Your task to perform on an android device: Search for "logitech g910" on bestbuy, select the first entry, add it to the cart, then select checkout. Image 0: 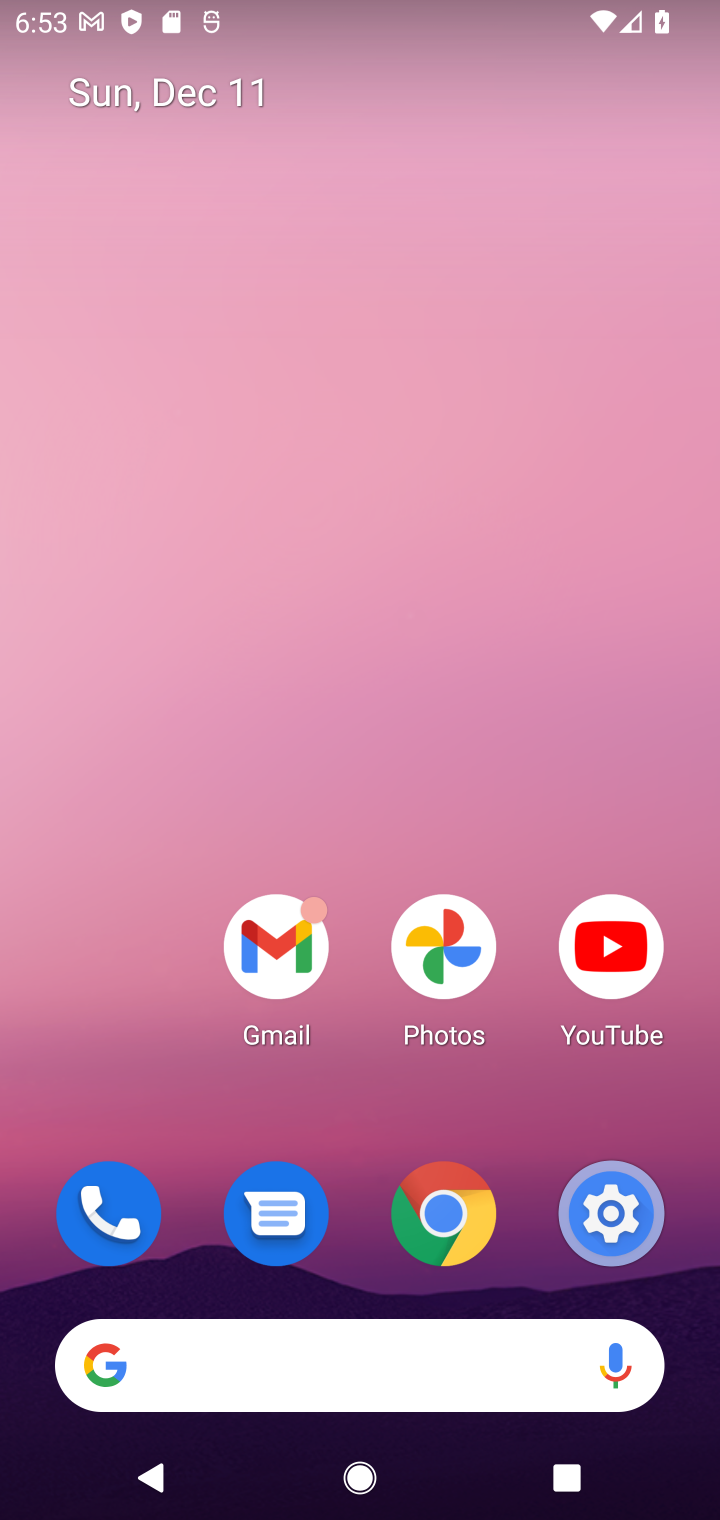
Step 0: click (363, 1352)
Your task to perform on an android device: Search for "logitech g910" on bestbuy, select the first entry, add it to the cart, then select checkout. Image 1: 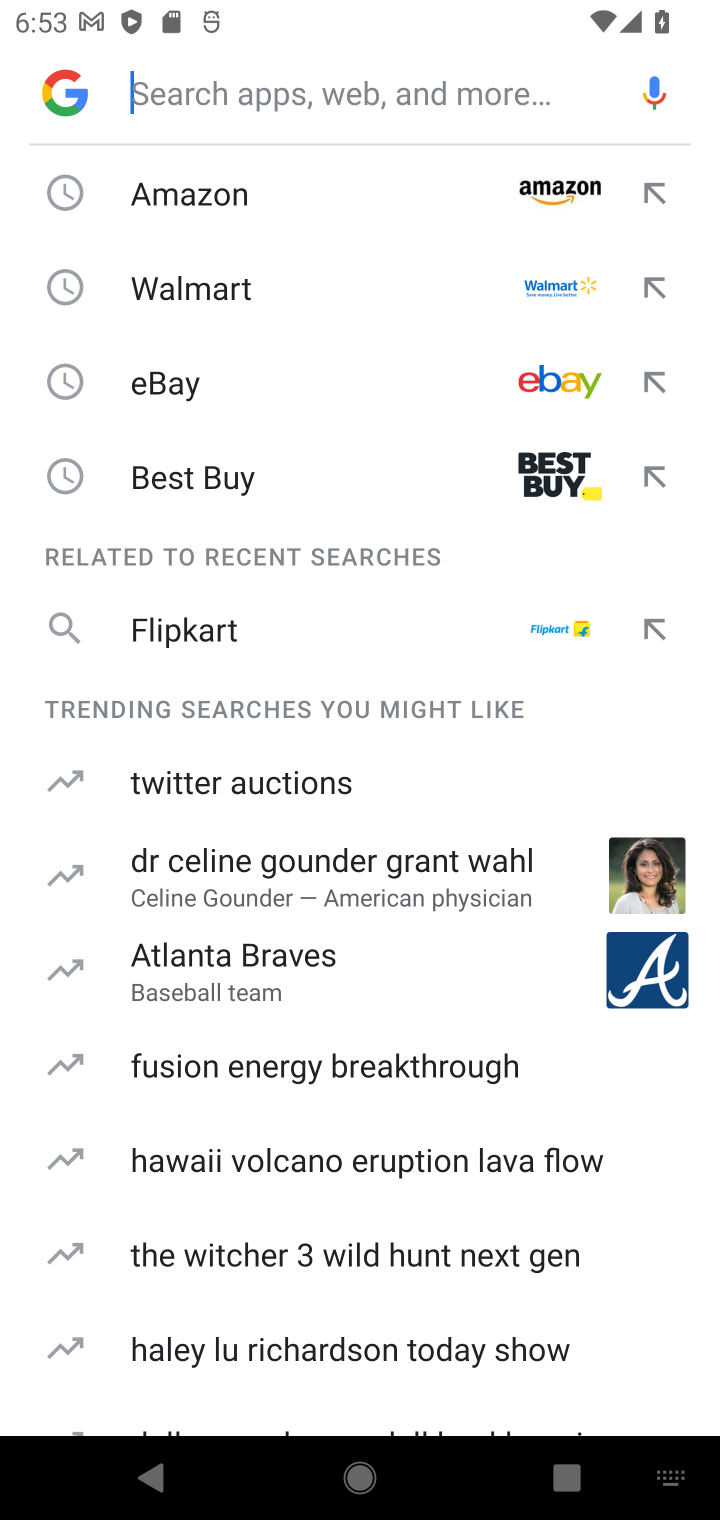
Step 1: click (336, 482)
Your task to perform on an android device: Search for "logitech g910" on bestbuy, select the first entry, add it to the cart, then select checkout. Image 2: 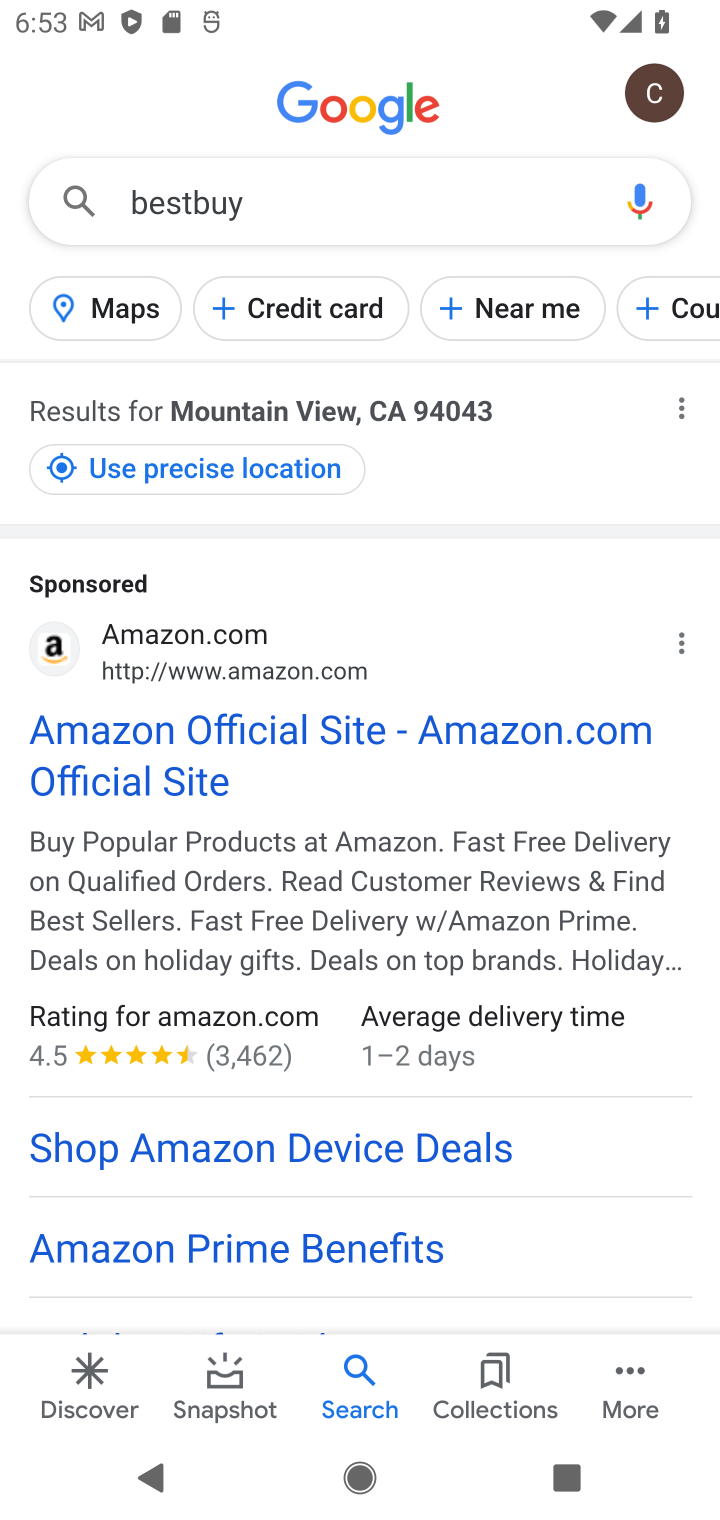
Step 2: click (209, 766)
Your task to perform on an android device: Search for "logitech g910" on bestbuy, select the first entry, add it to the cart, then select checkout. Image 3: 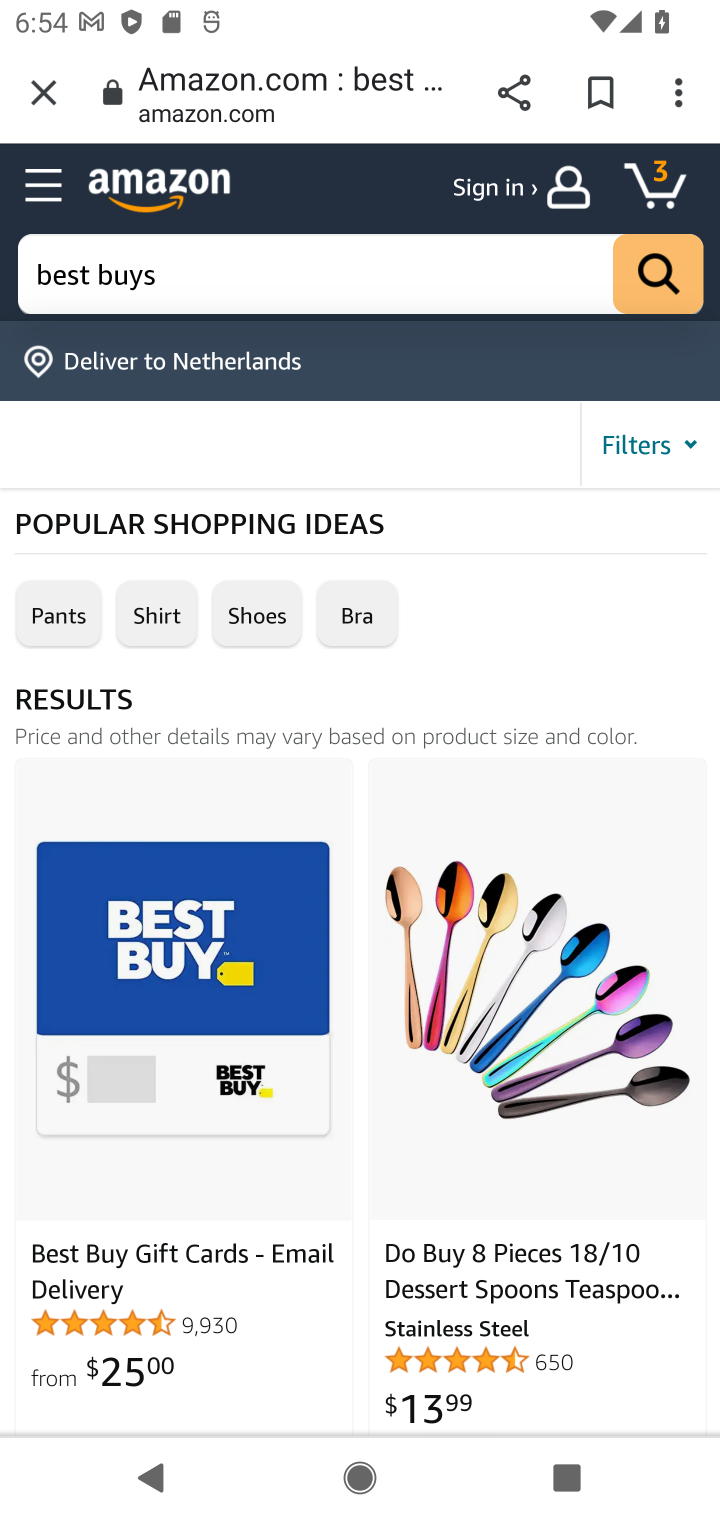
Step 3: click (440, 290)
Your task to perform on an android device: Search for "logitech g910" on bestbuy, select the first entry, add it to the cart, then select checkout. Image 4: 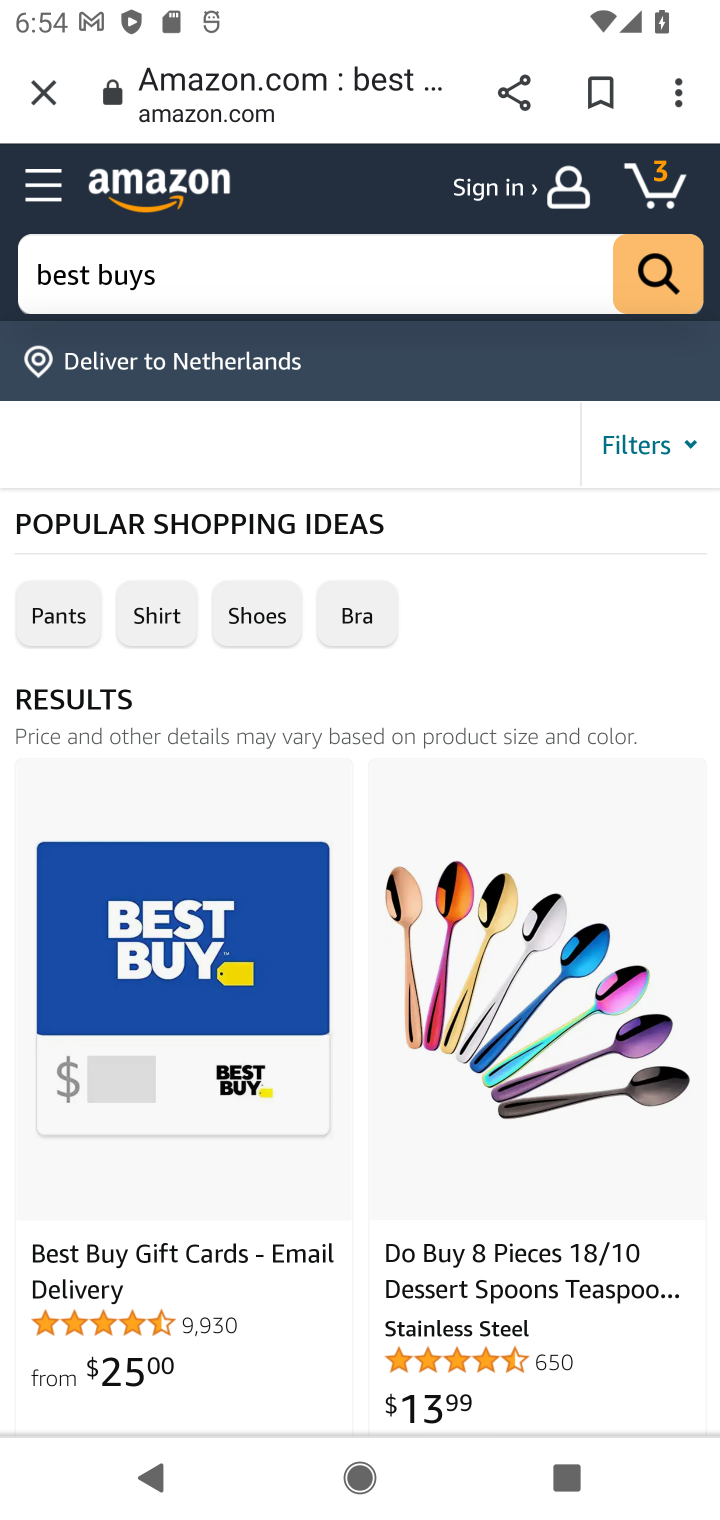
Step 4: click (440, 290)
Your task to perform on an android device: Search for "logitech g910" on bestbuy, select the first entry, add it to the cart, then select checkout. Image 5: 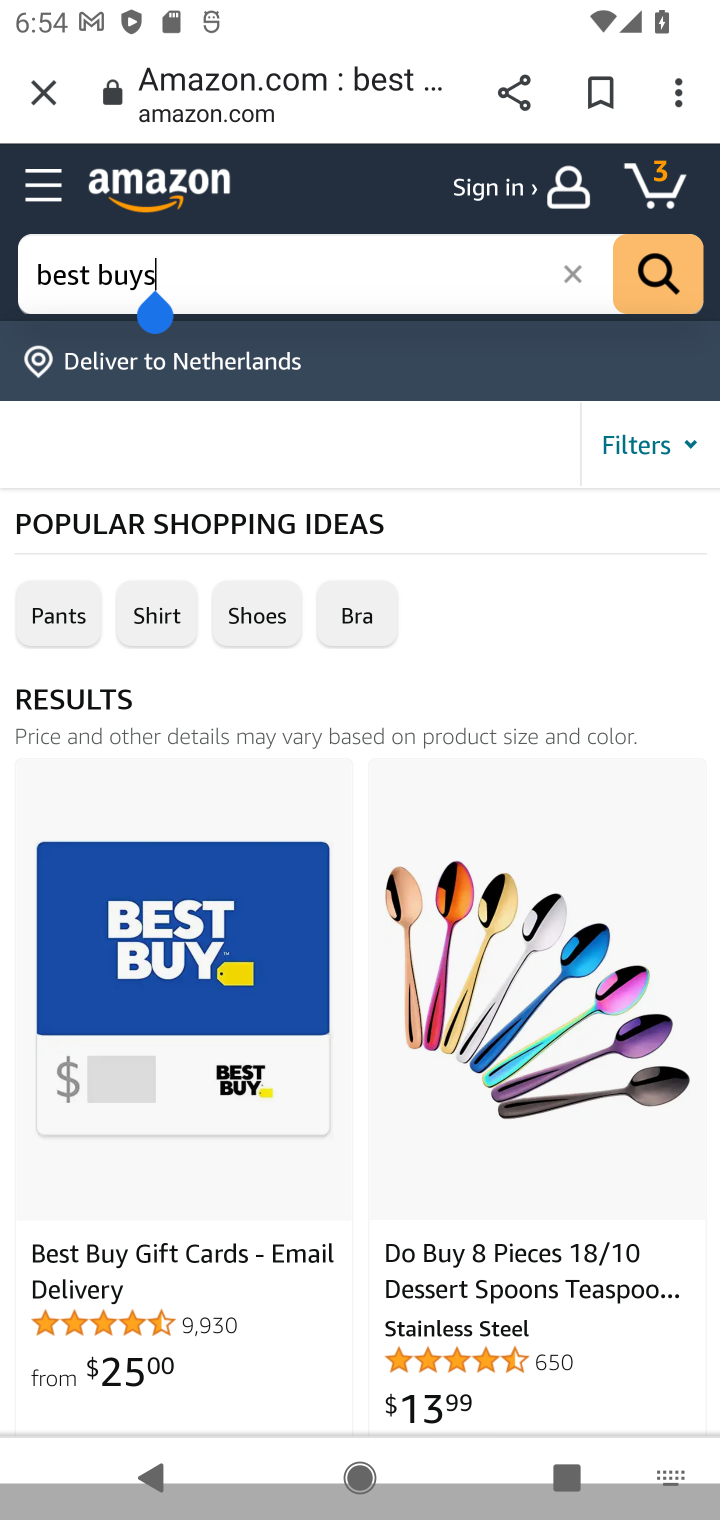
Step 5: click (440, 290)
Your task to perform on an android device: Search for "logitech g910" on bestbuy, select the first entry, add it to the cart, then select checkout. Image 6: 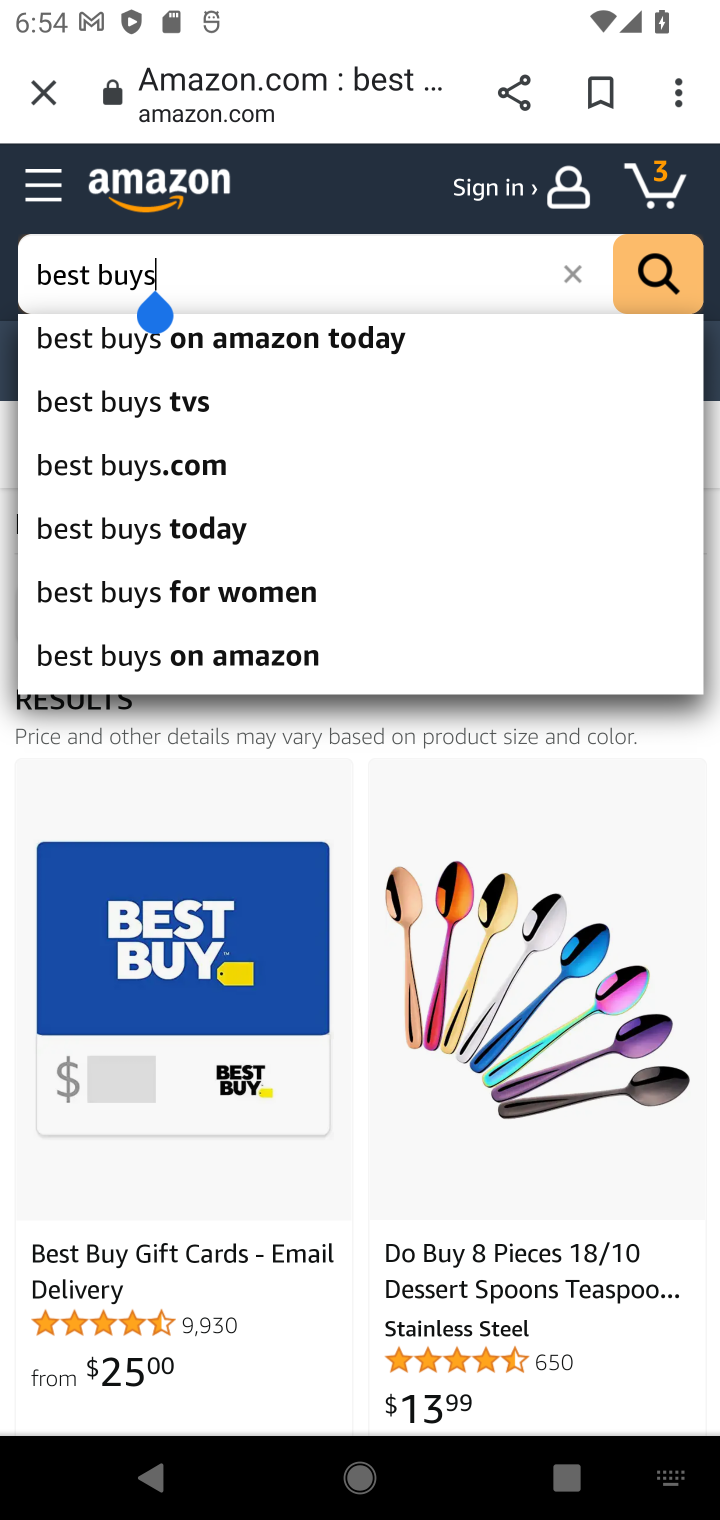
Step 6: click (383, 110)
Your task to perform on an android device: Search for "logitech g910" on bestbuy, select the first entry, add it to the cart, then select checkout. Image 7: 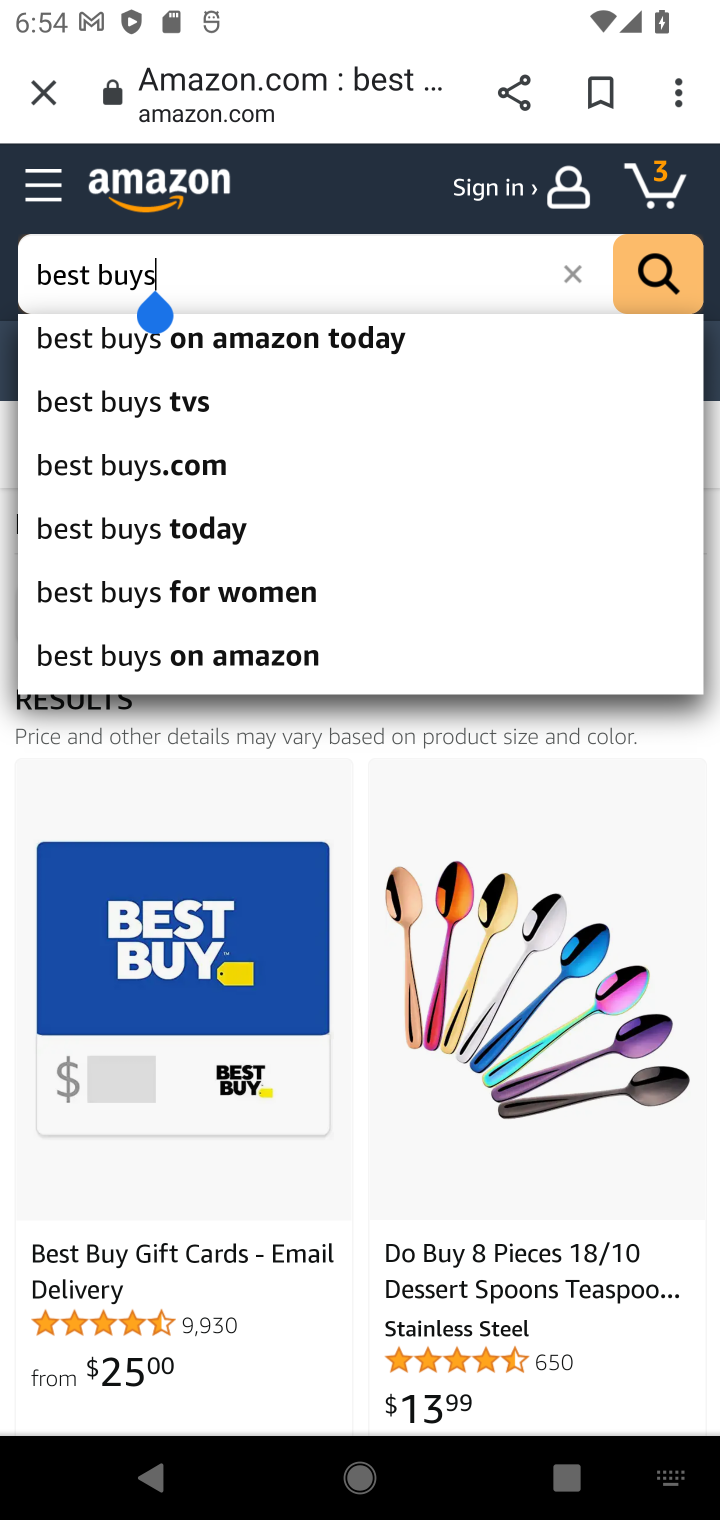
Step 7: click (383, 110)
Your task to perform on an android device: Search for "logitech g910" on bestbuy, select the first entry, add it to the cart, then select checkout. Image 8: 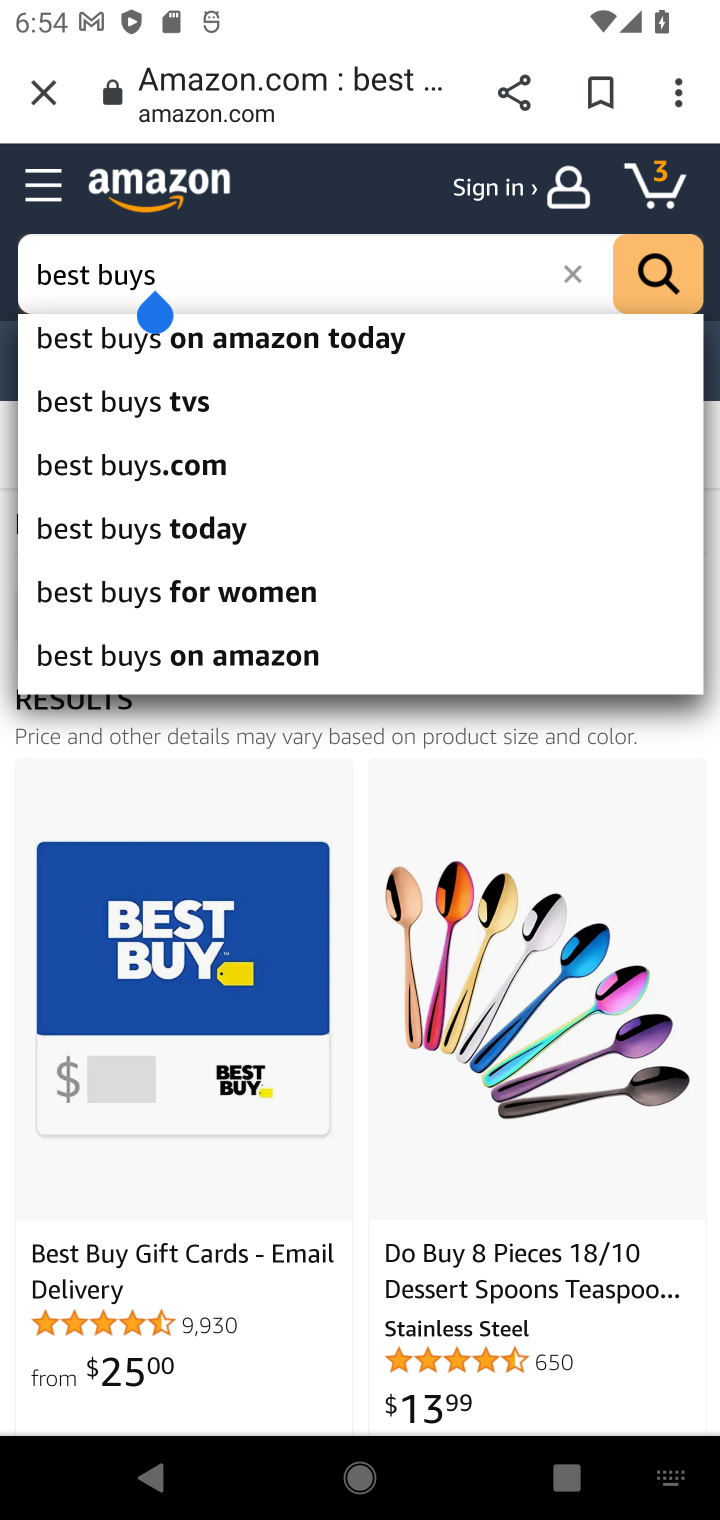
Step 8: click (383, 110)
Your task to perform on an android device: Search for "logitech g910" on bestbuy, select the first entry, add it to the cart, then select checkout. Image 9: 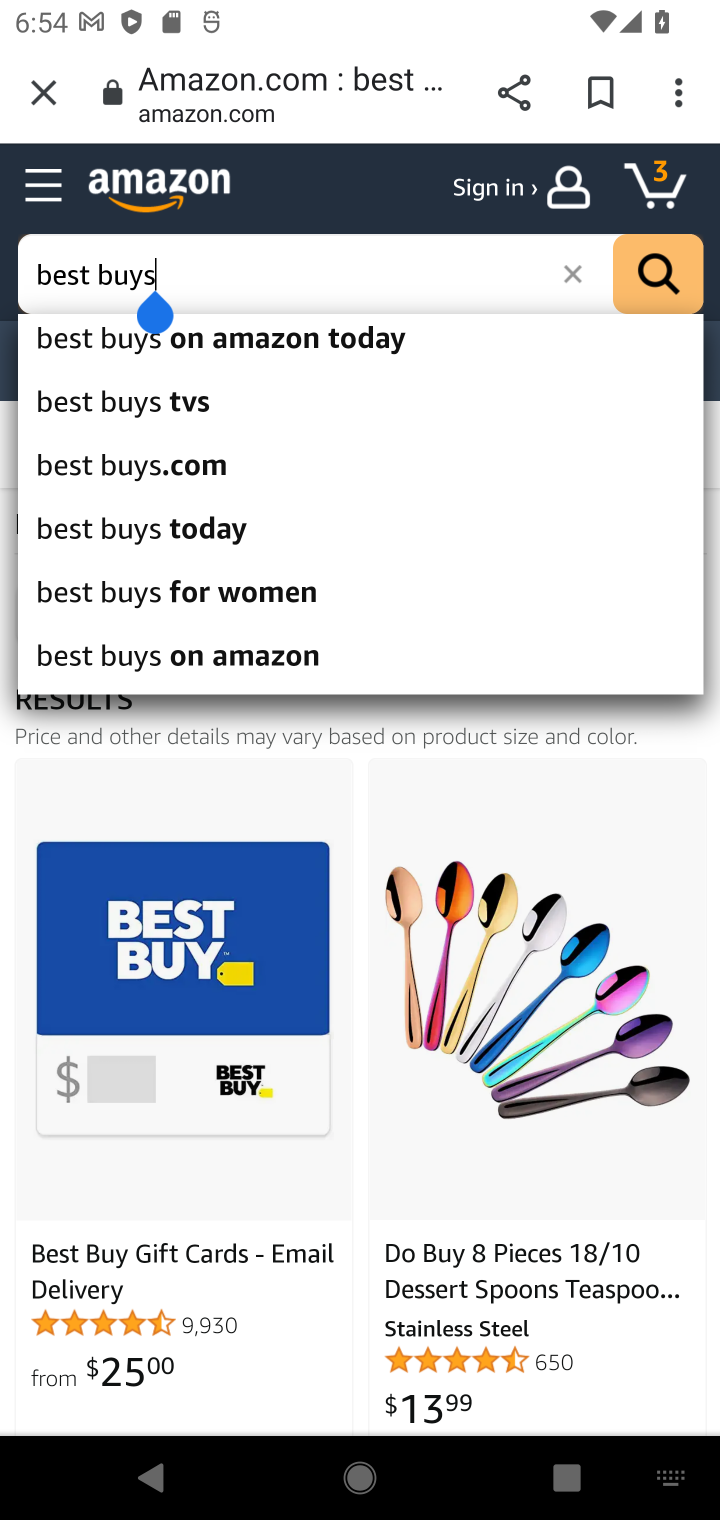
Step 9: click (33, 78)
Your task to perform on an android device: Search for "logitech g910" on bestbuy, select the first entry, add it to the cart, then select checkout. Image 10: 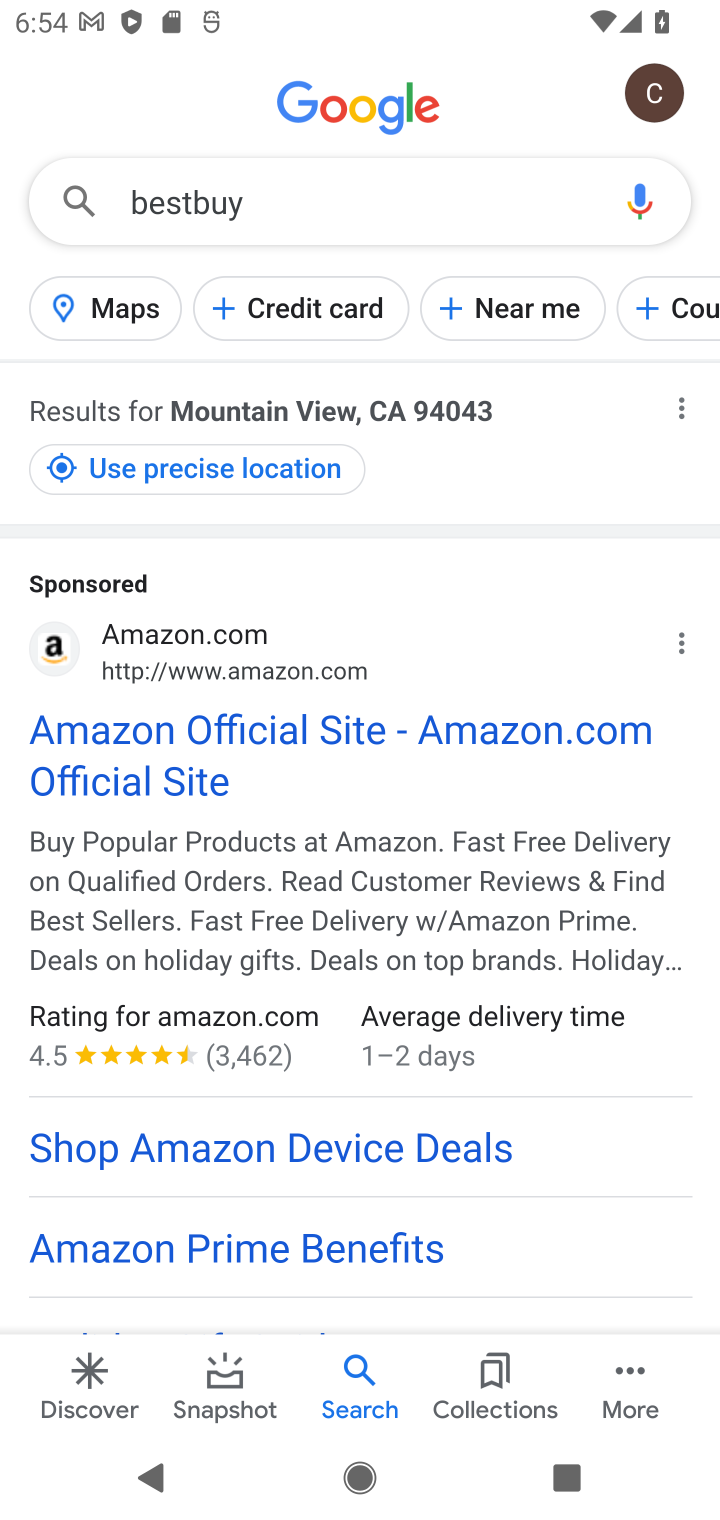
Step 10: click (347, 221)
Your task to perform on an android device: Search for "logitech g910" on bestbuy, select the first entry, add it to the cart, then select checkout. Image 11: 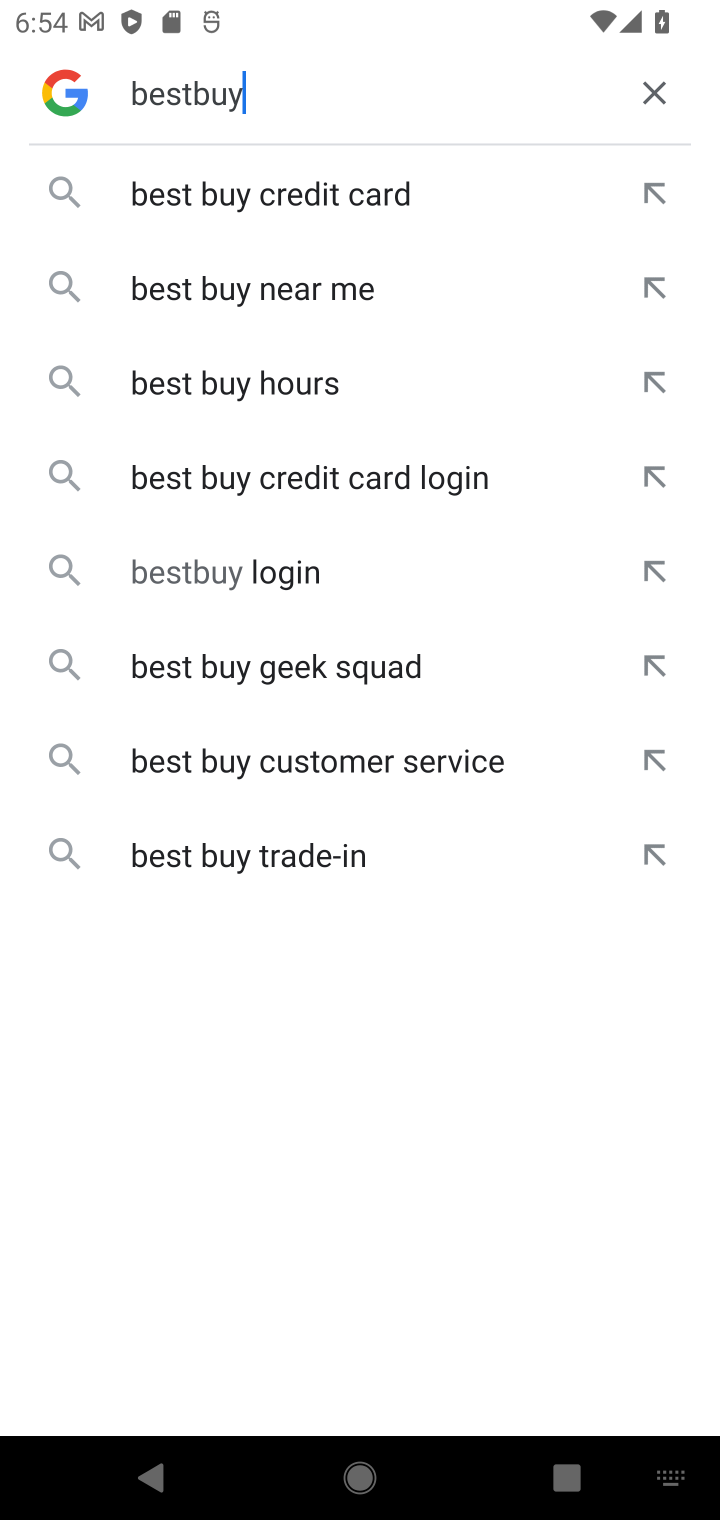
Step 11: click (331, 213)
Your task to perform on an android device: Search for "logitech g910" on bestbuy, select the first entry, add it to the cart, then select checkout. Image 12: 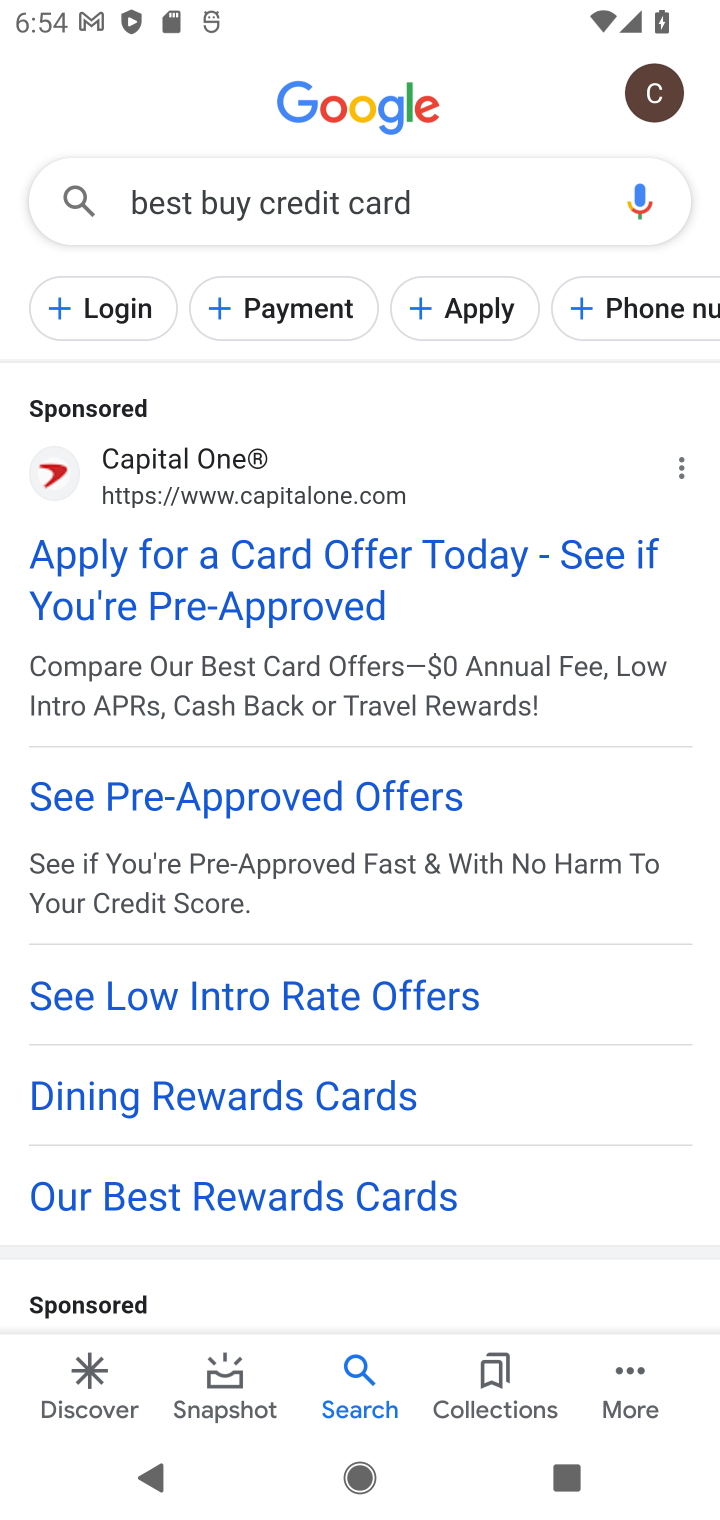
Step 12: click (447, 211)
Your task to perform on an android device: Search for "logitech g910" on bestbuy, select the first entry, add it to the cart, then select checkout. Image 13: 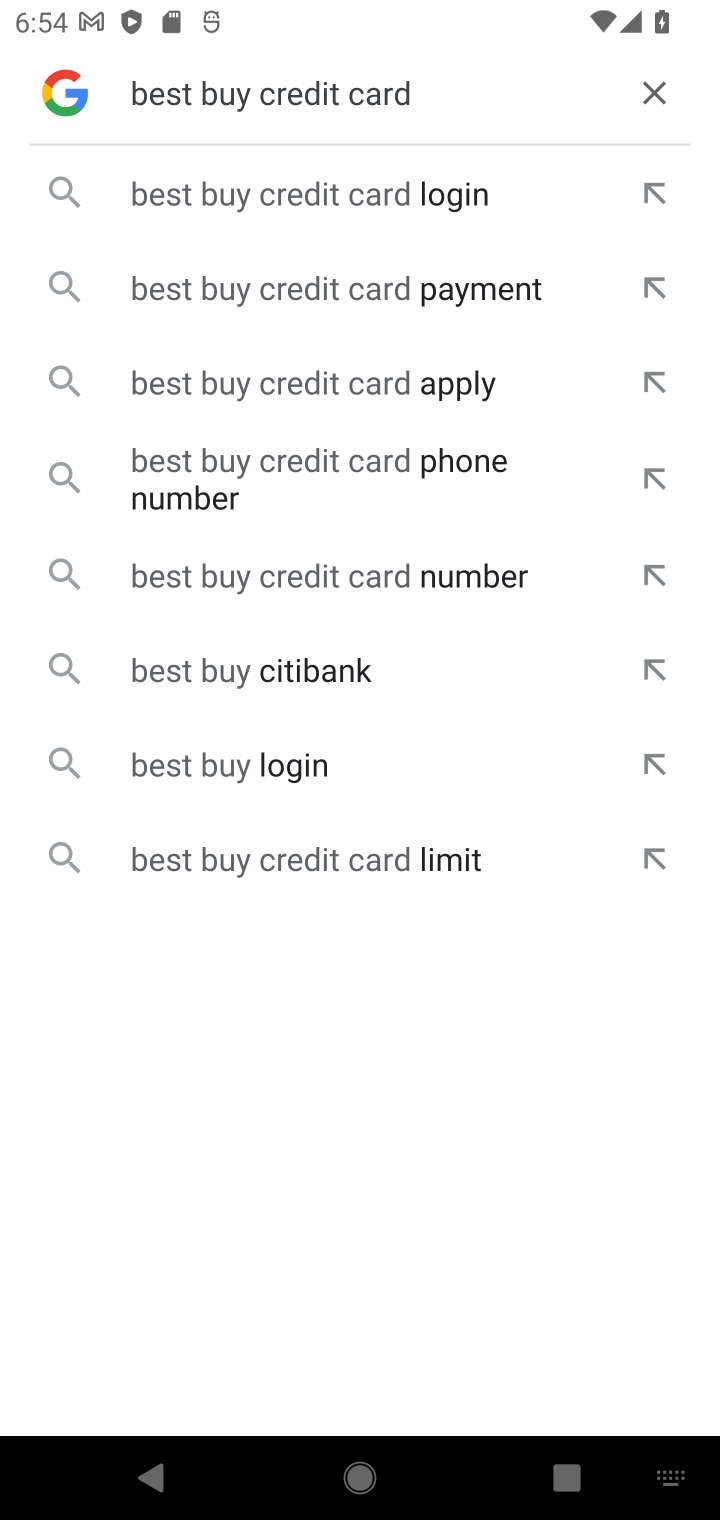
Step 13: click (674, 75)
Your task to perform on an android device: Search for "logitech g910" on bestbuy, select the first entry, add it to the cart, then select checkout. Image 14: 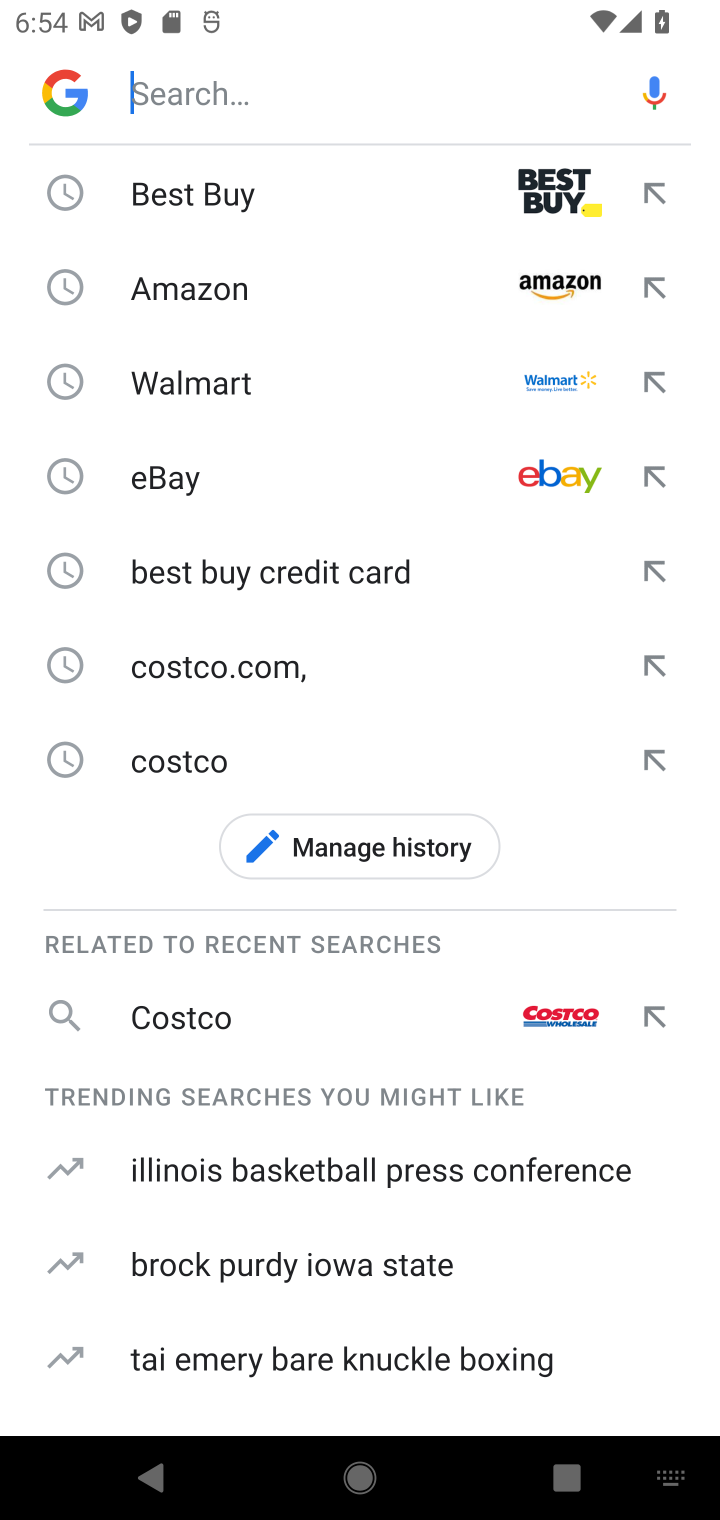
Step 14: click (373, 207)
Your task to perform on an android device: Search for "logitech g910" on bestbuy, select the first entry, add it to the cart, then select checkout. Image 15: 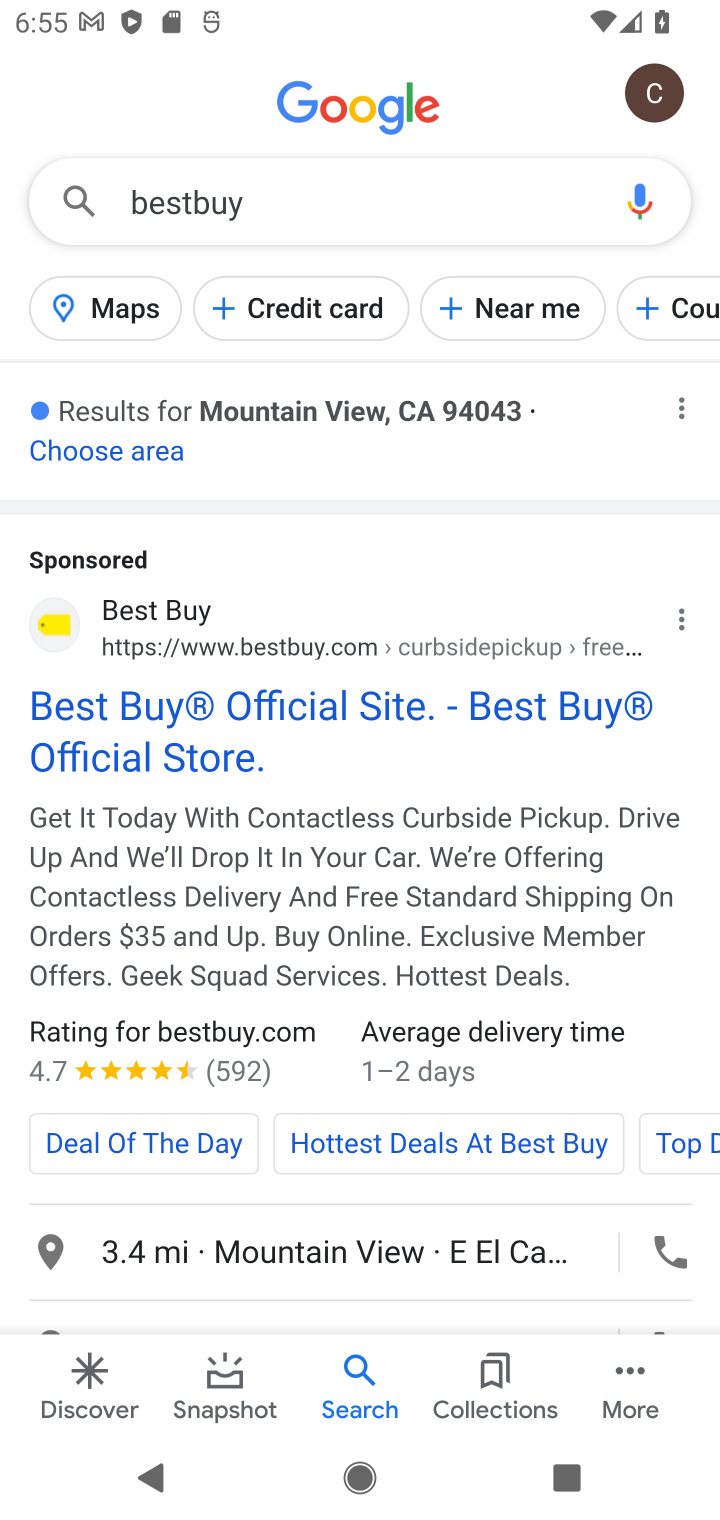
Step 15: click (327, 715)
Your task to perform on an android device: Search for "logitech g910" on bestbuy, select the first entry, add it to the cart, then select checkout. Image 16: 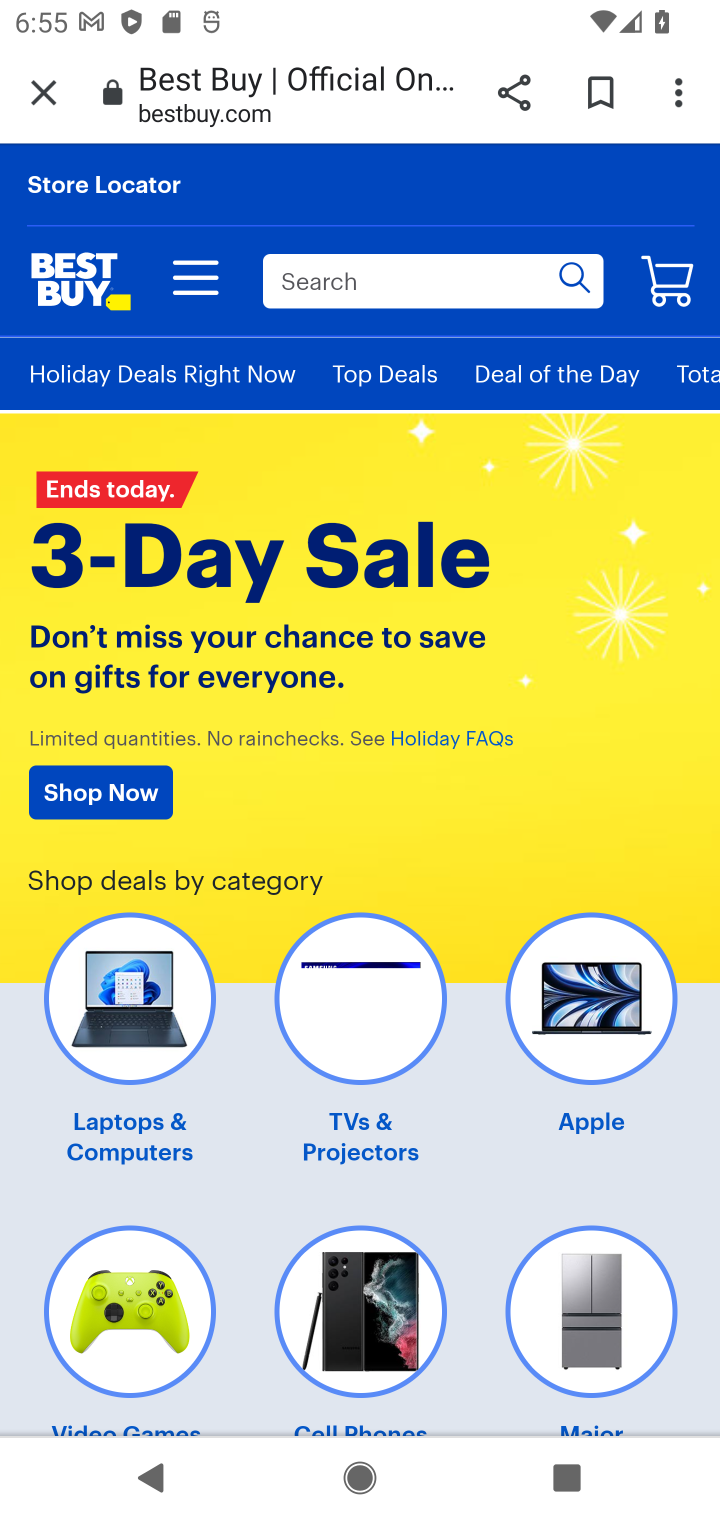
Step 16: click (355, 281)
Your task to perform on an android device: Search for "logitech g910" on bestbuy, select the first entry, add it to the cart, then select checkout. Image 17: 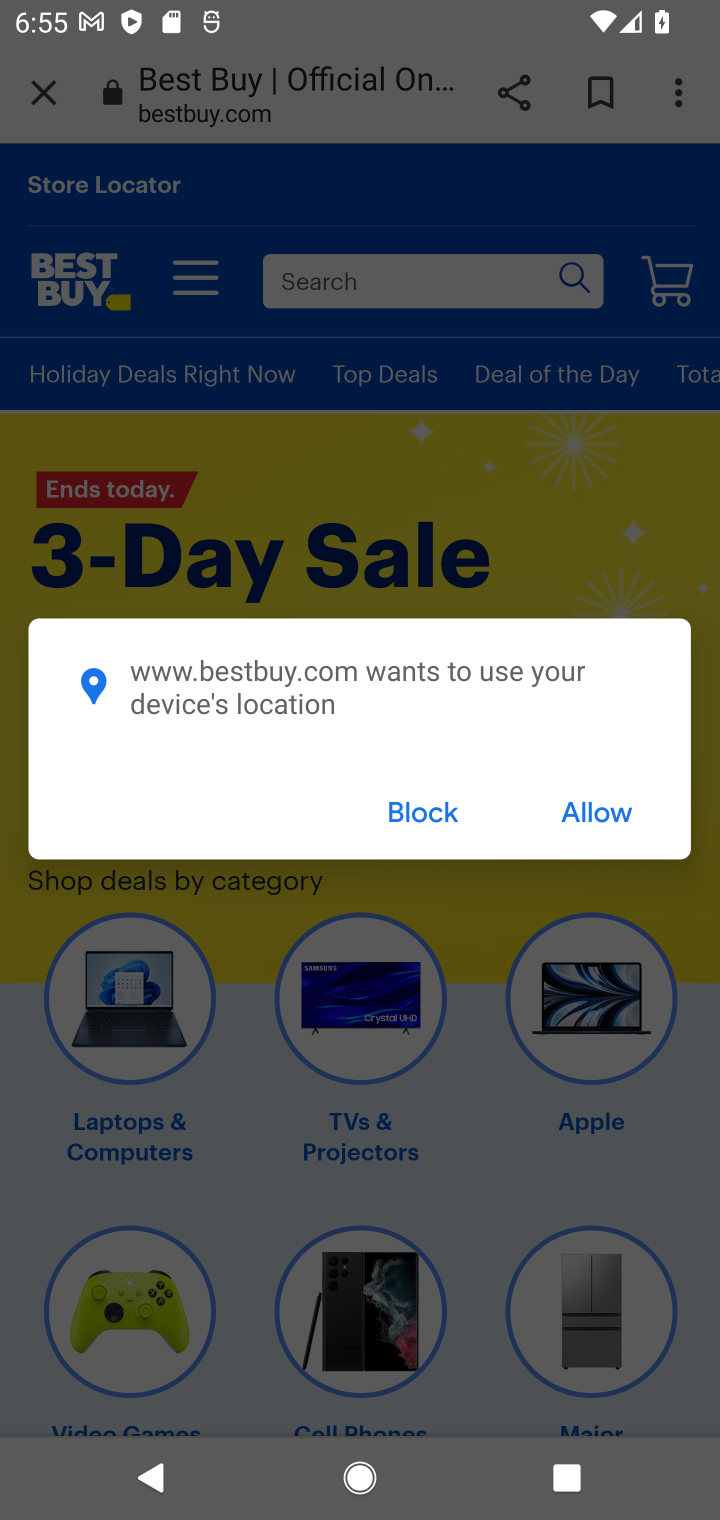
Step 17: type "logitech g pro"
Your task to perform on an android device: Search for "logitech g910" on bestbuy, select the first entry, add it to the cart, then select checkout. Image 18: 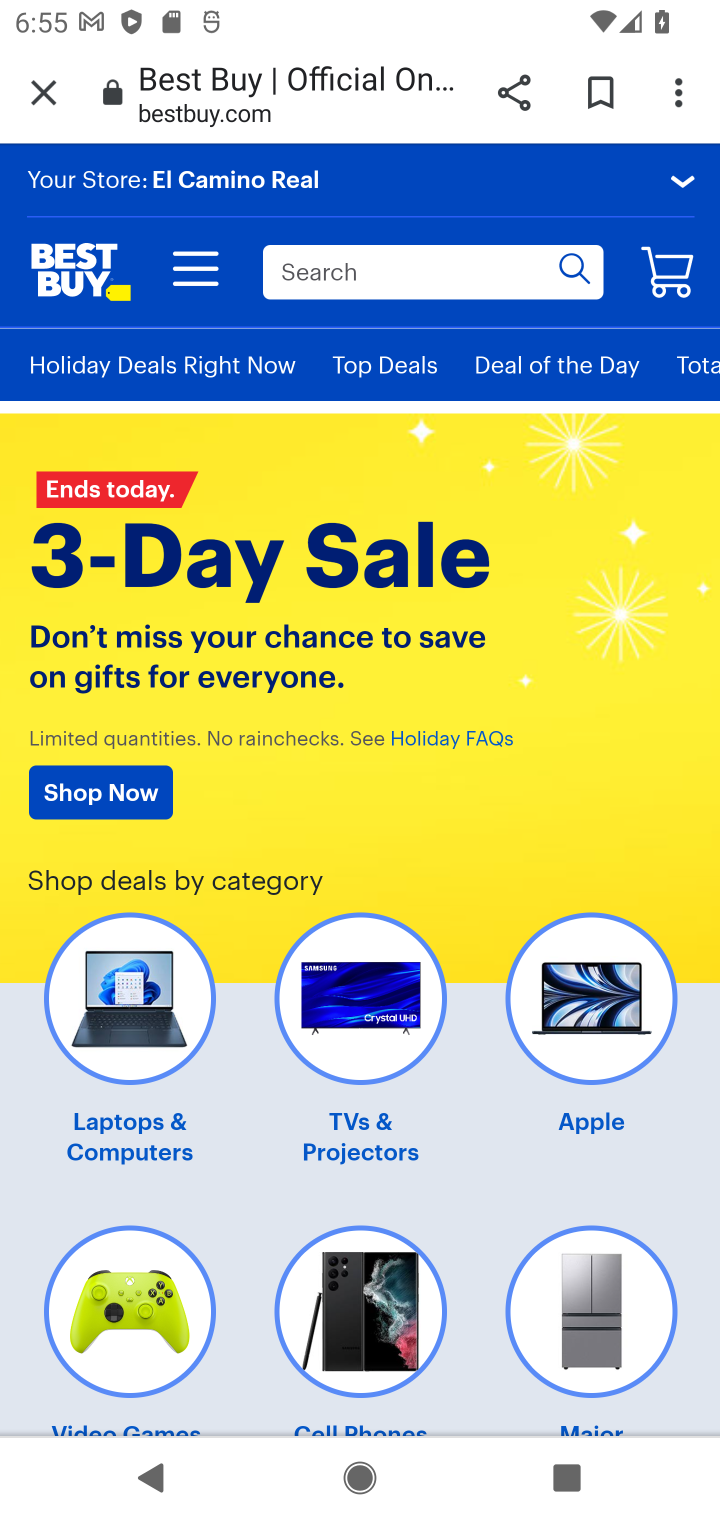
Step 18: click (431, 274)
Your task to perform on an android device: Search for "logitech g910" on bestbuy, select the first entry, add it to the cart, then select checkout. Image 19: 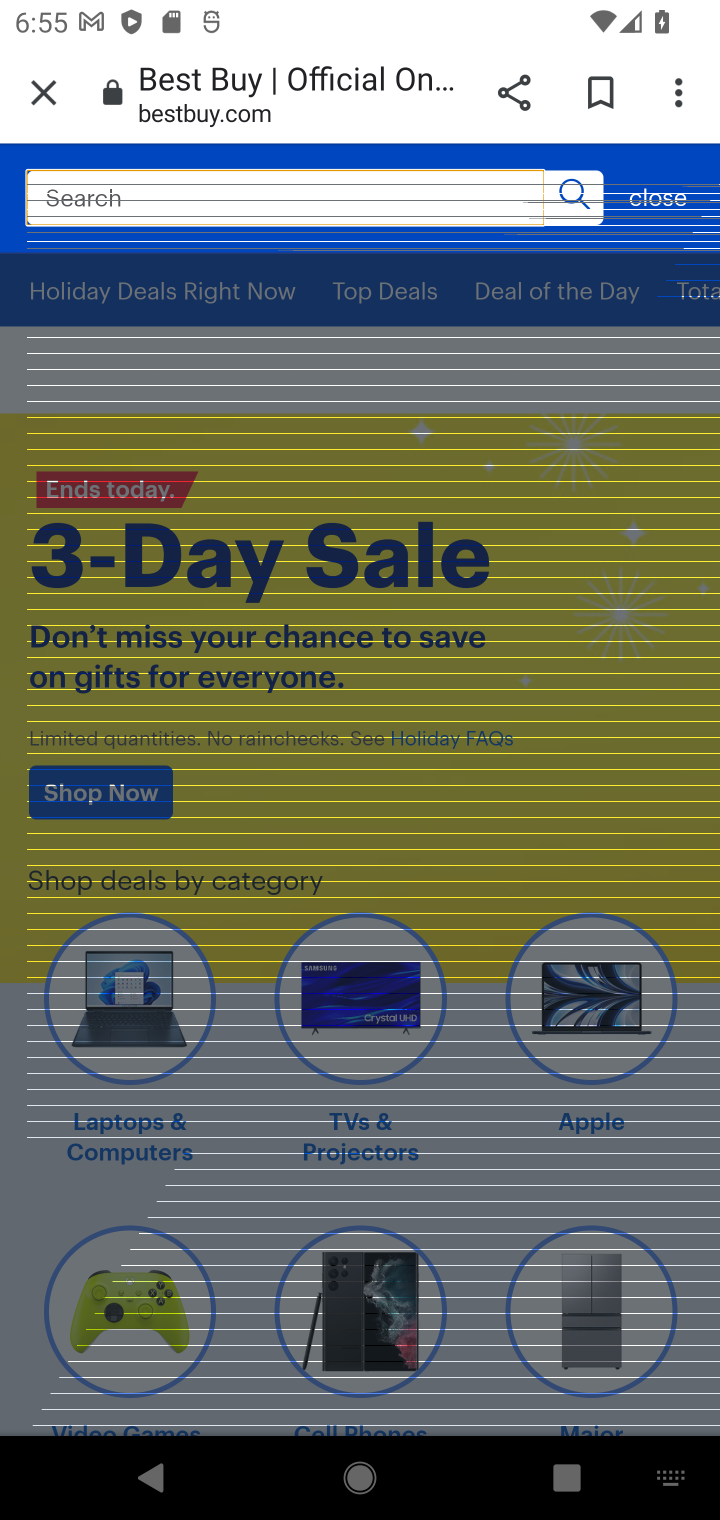
Step 19: type "logitech g pro"
Your task to perform on an android device: Search for "logitech g910" on bestbuy, select the first entry, add it to the cart, then select checkout. Image 20: 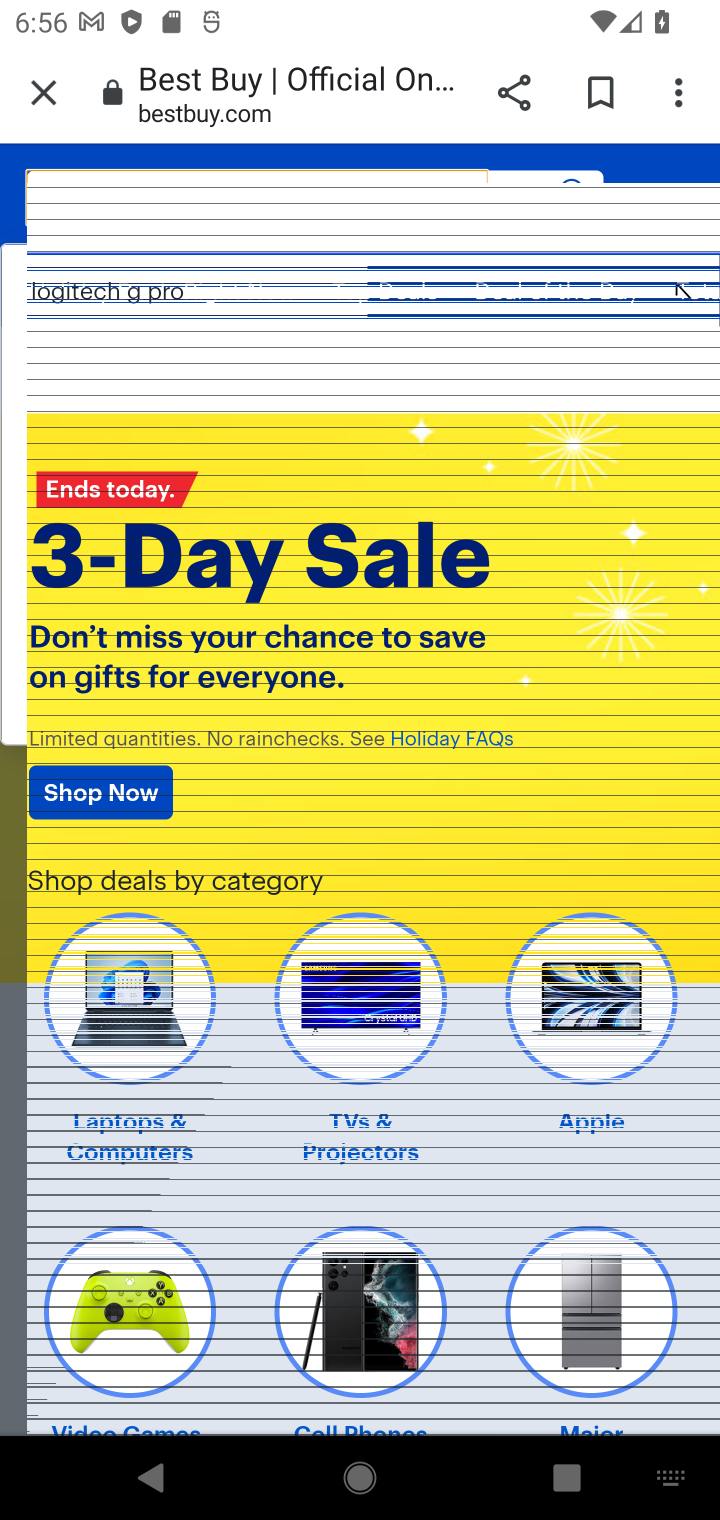
Step 20: click (135, 292)
Your task to perform on an android device: Search for "logitech g910" on bestbuy, select the first entry, add it to the cart, then select checkout. Image 21: 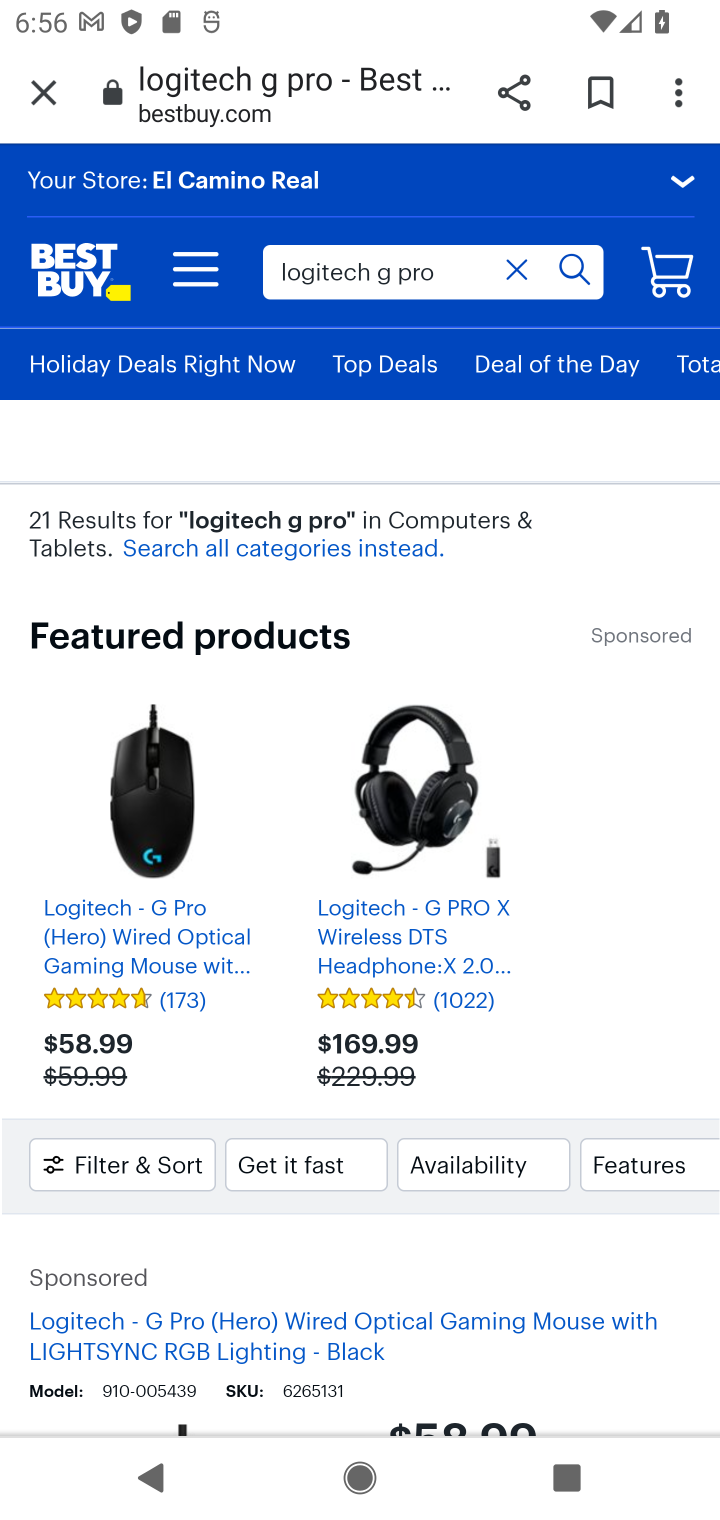
Step 21: click (191, 884)
Your task to perform on an android device: Search for "logitech g910" on bestbuy, select the first entry, add it to the cart, then select checkout. Image 22: 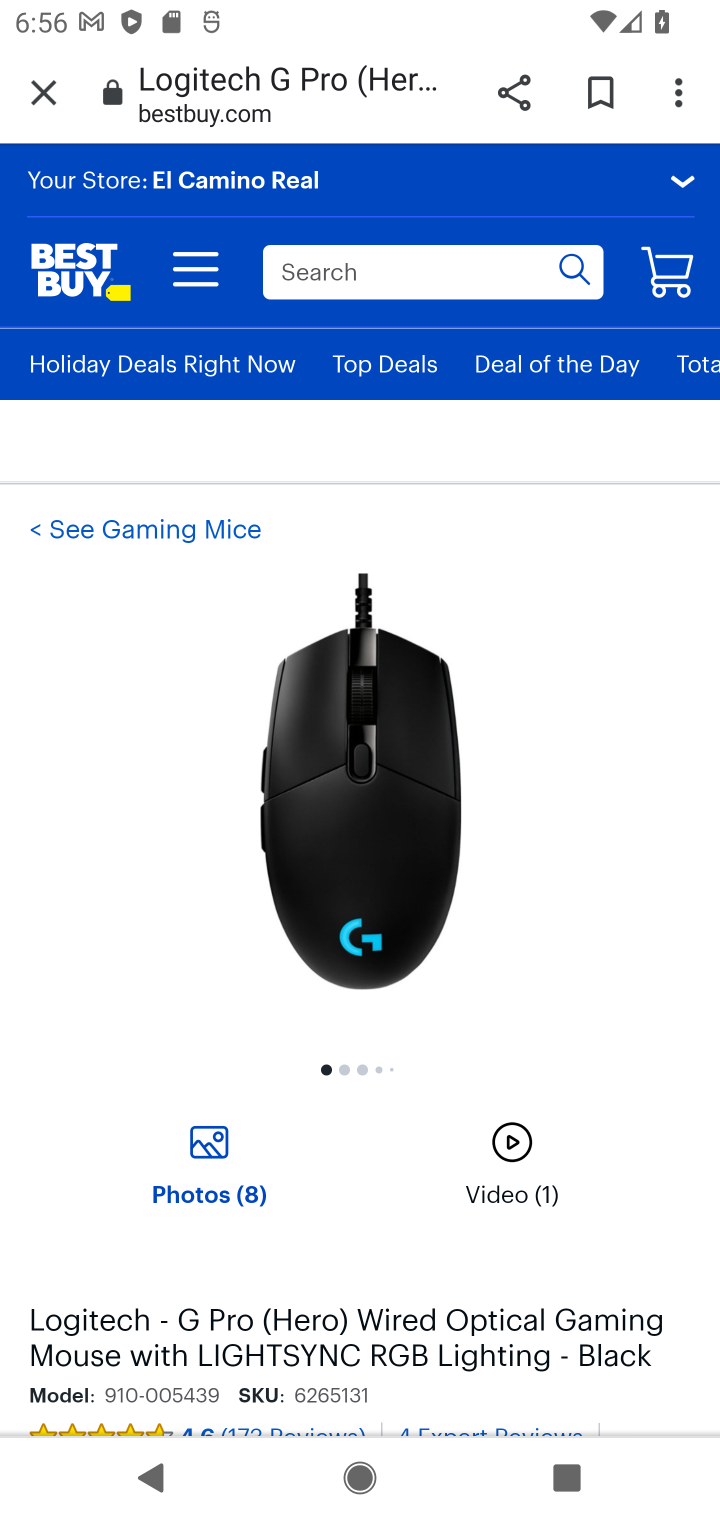
Step 22: drag from (221, 1094) to (228, 230)
Your task to perform on an android device: Search for "logitech g910" on bestbuy, select the first entry, add it to the cart, then select checkout. Image 23: 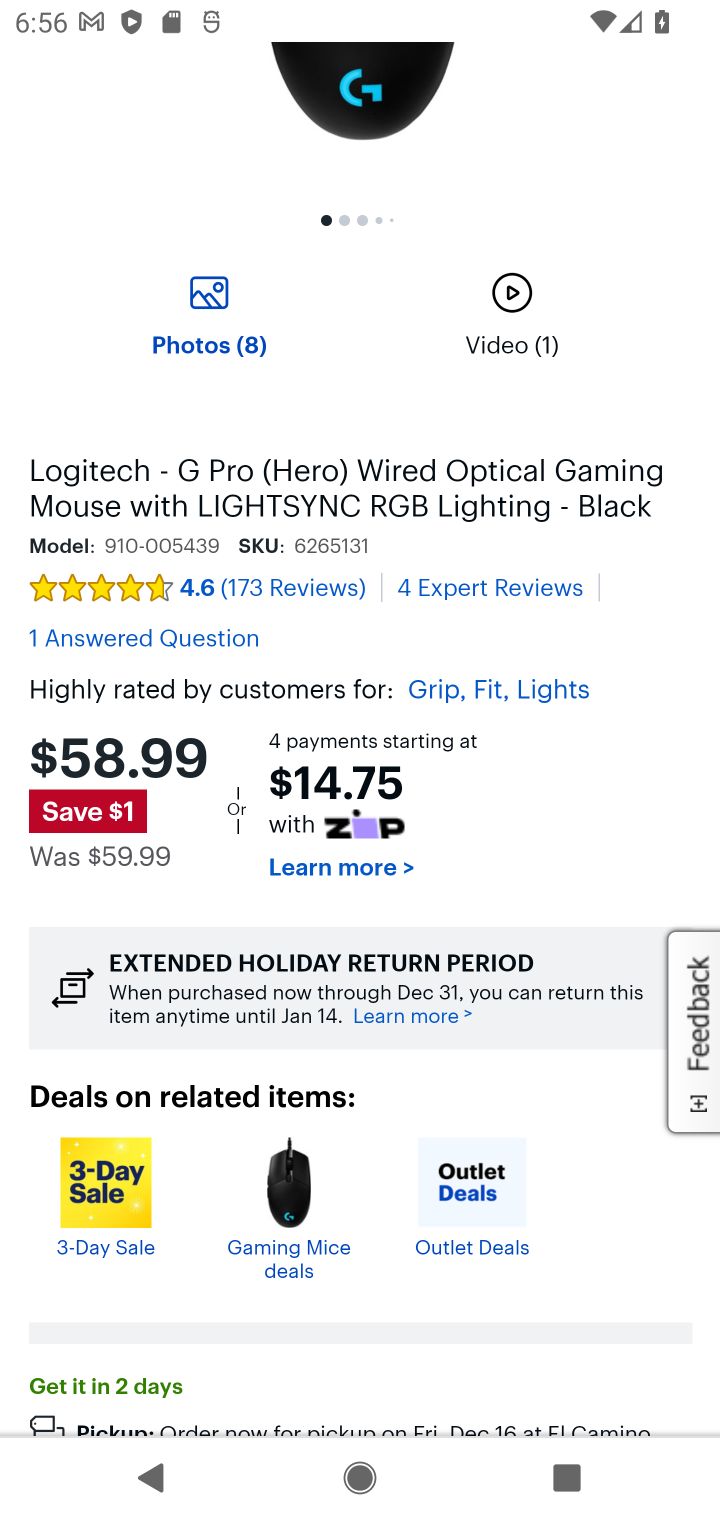
Step 23: drag from (440, 869) to (426, 429)
Your task to perform on an android device: Search for "logitech g910" on bestbuy, select the first entry, add it to the cart, then select checkout. Image 24: 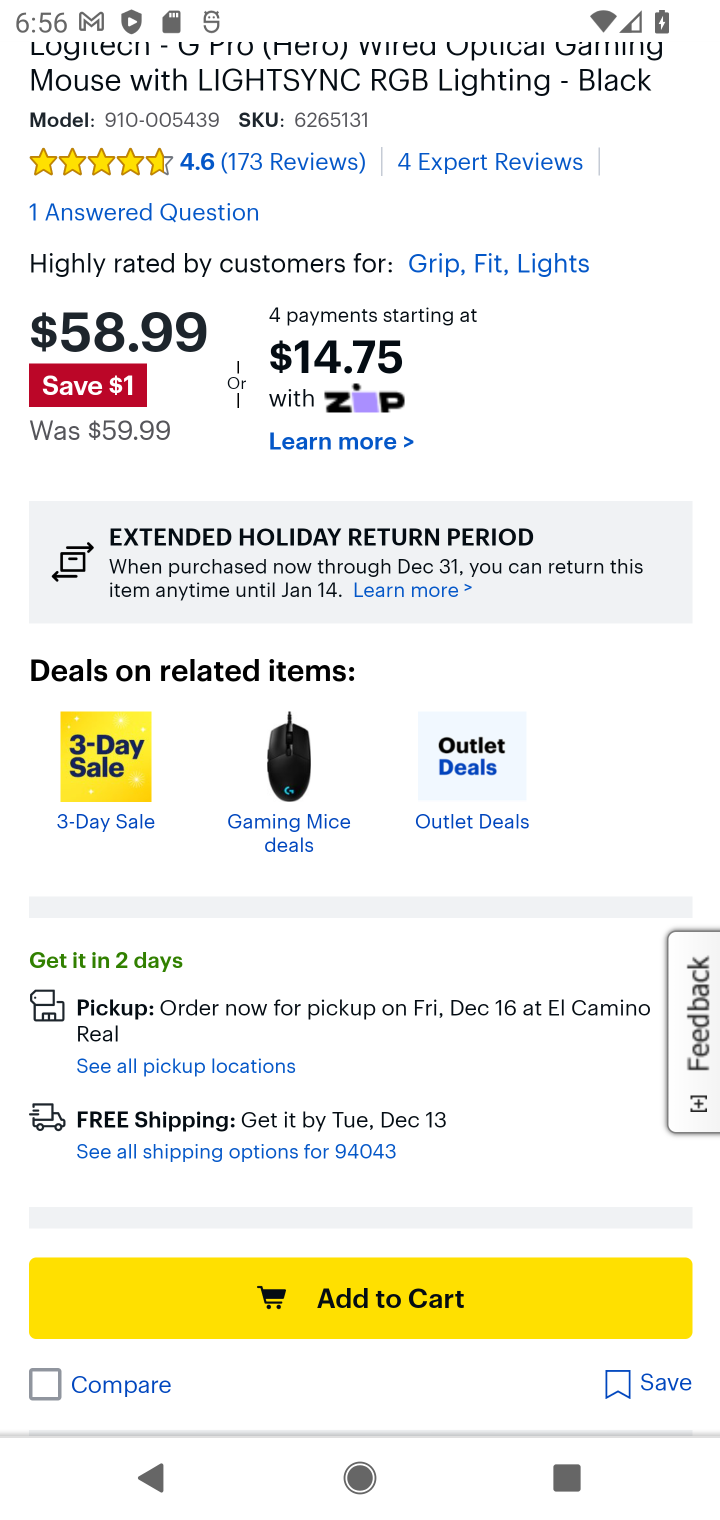
Step 24: click (496, 1284)
Your task to perform on an android device: Search for "logitech g910" on bestbuy, select the first entry, add it to the cart, then select checkout. Image 25: 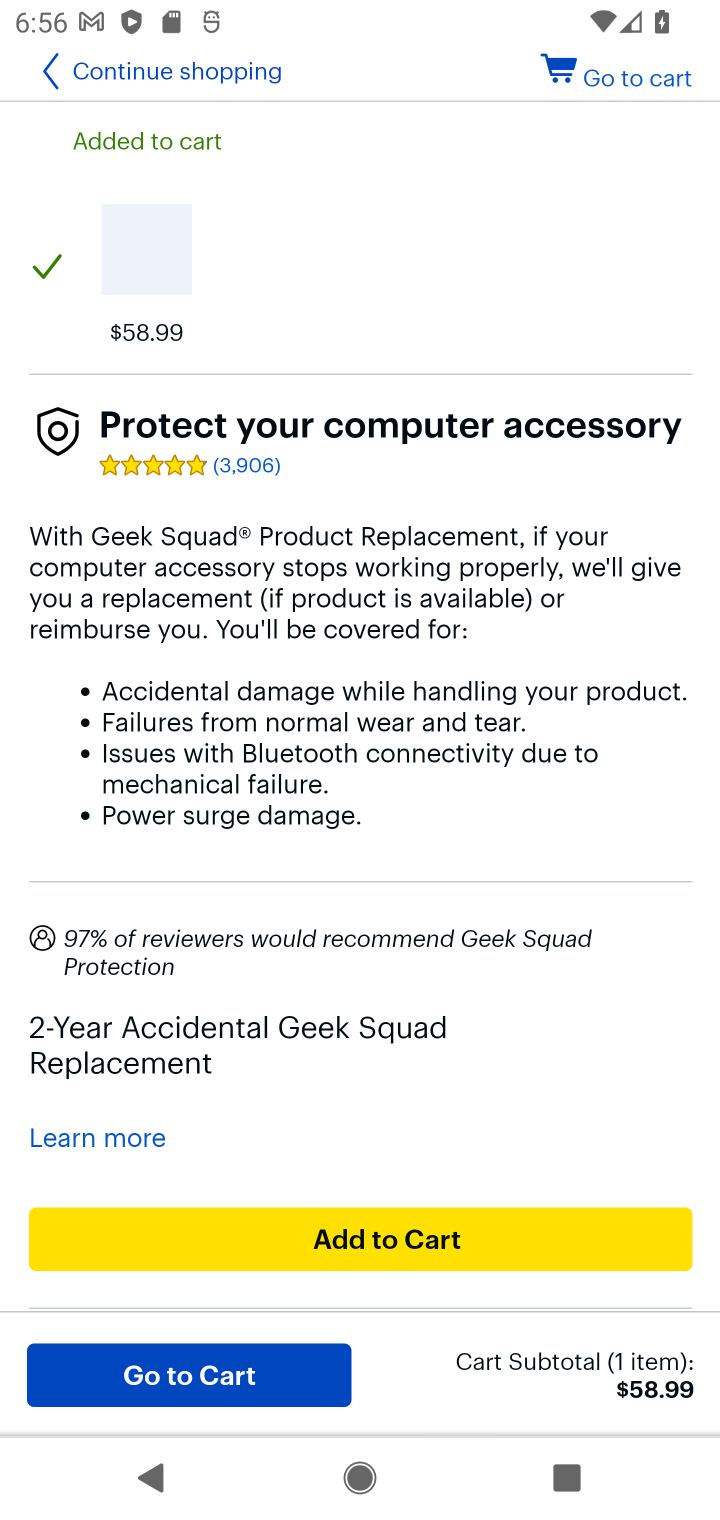
Step 25: task complete